Your task to perform on an android device: Open Youtube and go to the subscriptions tab Image 0: 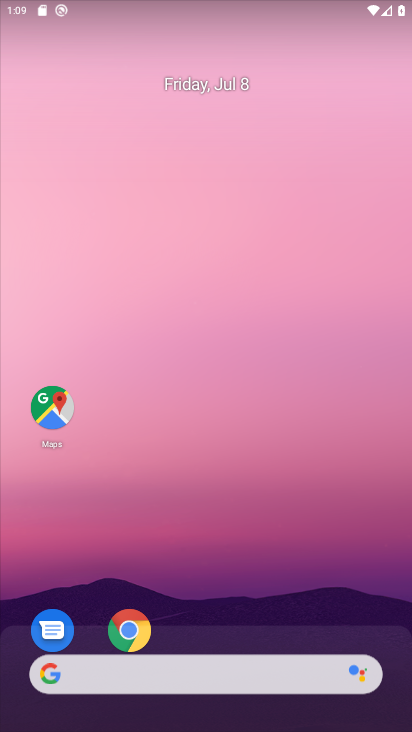
Step 0: drag from (155, 394) to (100, 48)
Your task to perform on an android device: Open Youtube and go to the subscriptions tab Image 1: 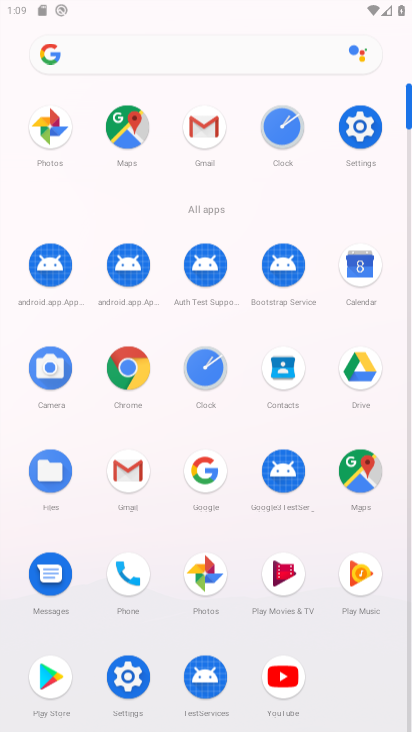
Step 1: click (200, 60)
Your task to perform on an android device: Open Youtube and go to the subscriptions tab Image 2: 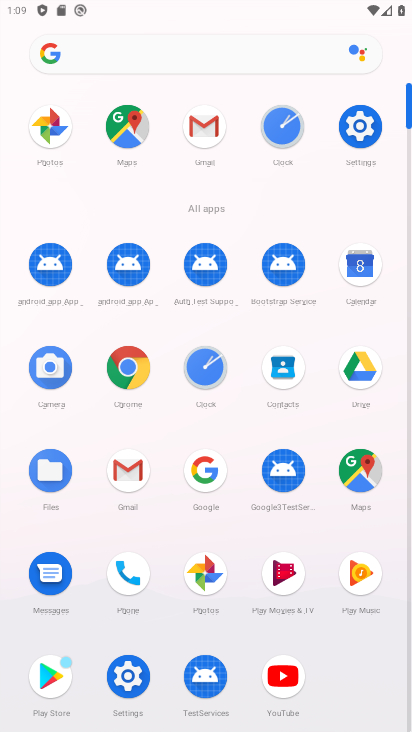
Step 2: click (281, 655)
Your task to perform on an android device: Open Youtube and go to the subscriptions tab Image 3: 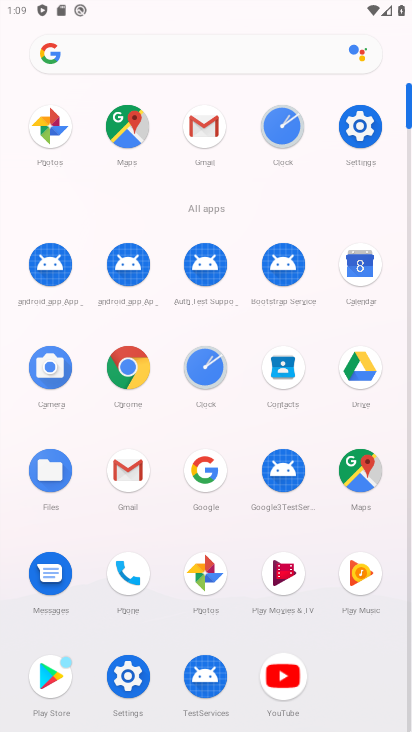
Step 3: click (284, 660)
Your task to perform on an android device: Open Youtube and go to the subscriptions tab Image 4: 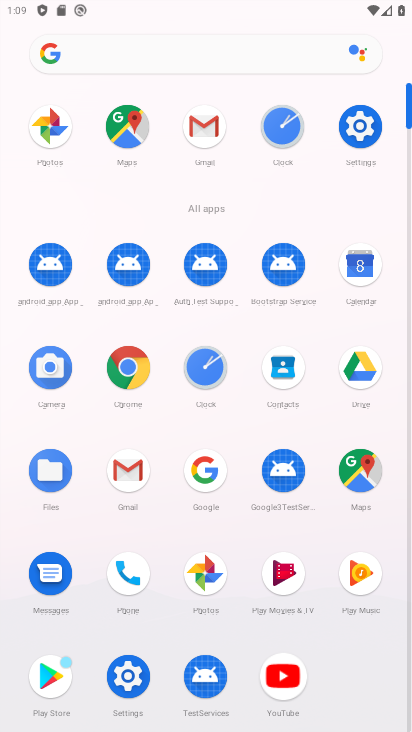
Step 4: click (285, 661)
Your task to perform on an android device: Open Youtube and go to the subscriptions tab Image 5: 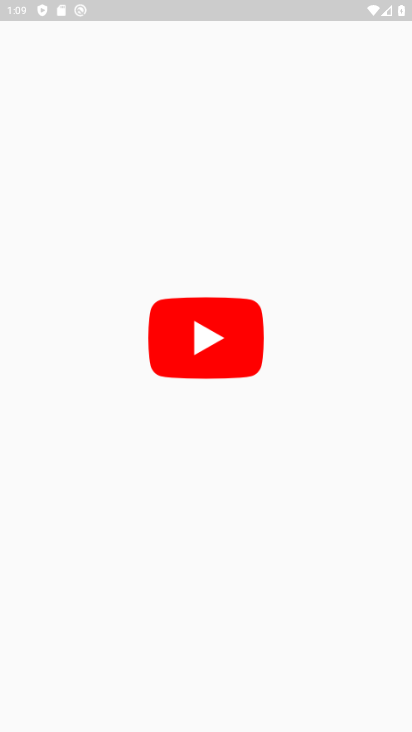
Step 5: click (273, 669)
Your task to perform on an android device: Open Youtube and go to the subscriptions tab Image 6: 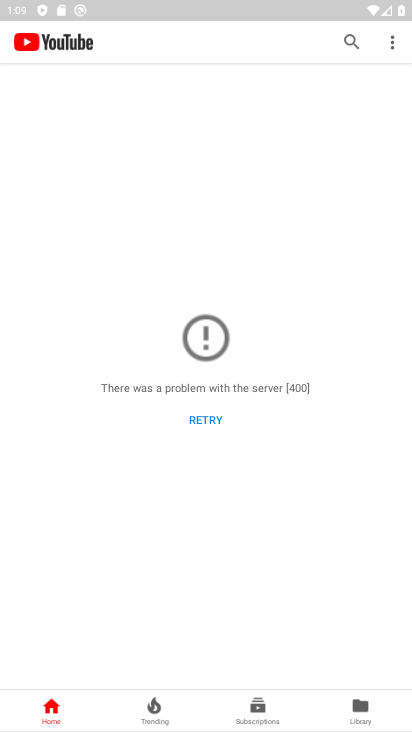
Step 6: drag from (223, 512) to (177, 177)
Your task to perform on an android device: Open Youtube and go to the subscriptions tab Image 7: 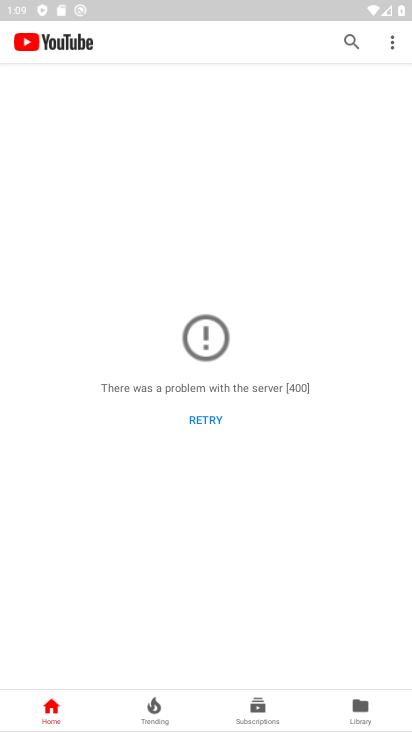
Step 7: drag from (262, 453) to (263, 399)
Your task to perform on an android device: Open Youtube and go to the subscriptions tab Image 8: 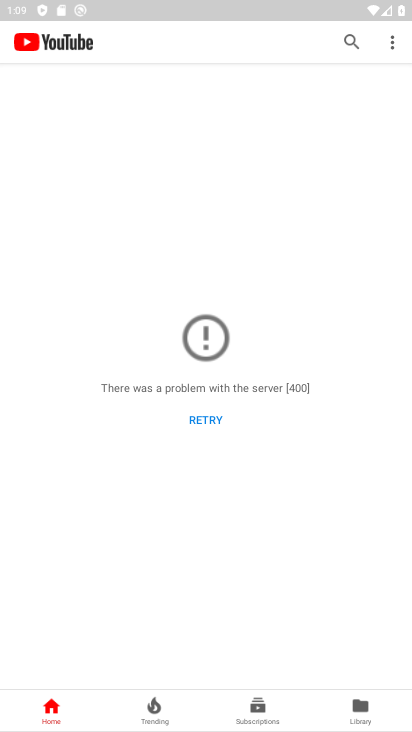
Step 8: click (247, 702)
Your task to perform on an android device: Open Youtube and go to the subscriptions tab Image 9: 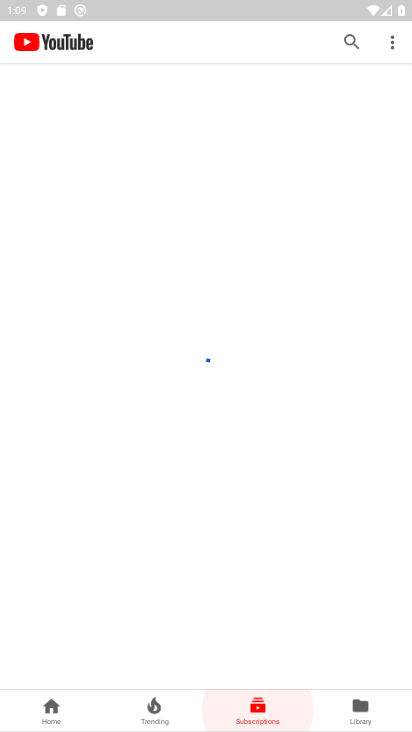
Step 9: click (248, 699)
Your task to perform on an android device: Open Youtube and go to the subscriptions tab Image 10: 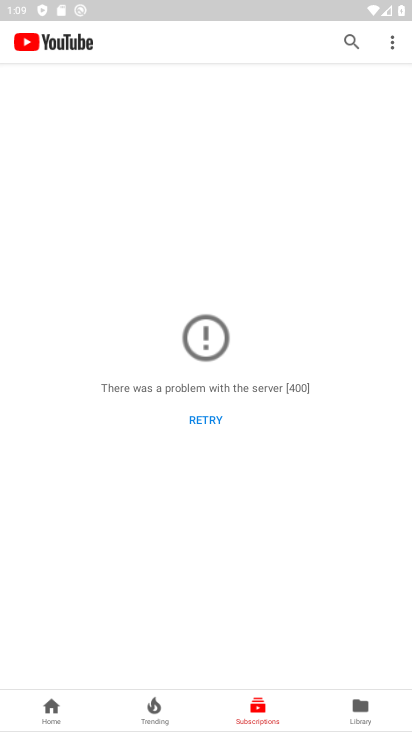
Step 10: click (250, 696)
Your task to perform on an android device: Open Youtube and go to the subscriptions tab Image 11: 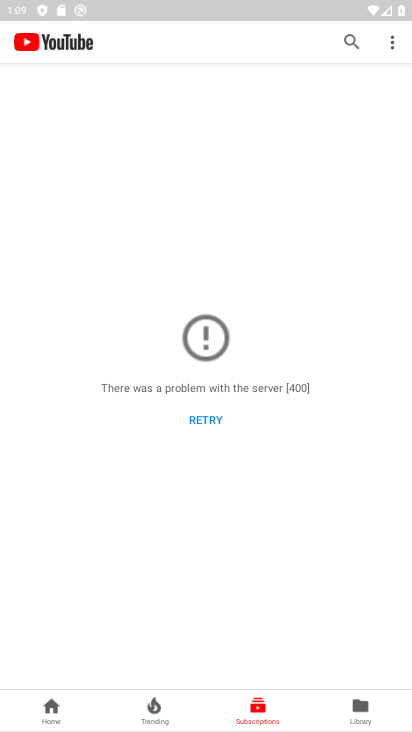
Step 11: task complete